Your task to perform on an android device: Show me recent news Image 0: 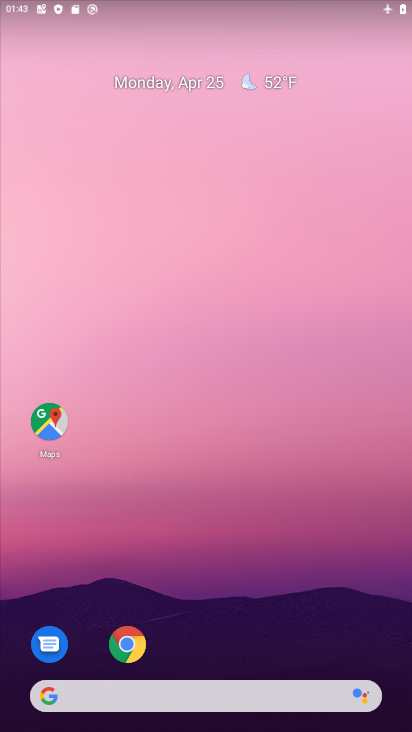
Step 0: drag from (242, 631) to (272, 265)
Your task to perform on an android device: Show me recent news Image 1: 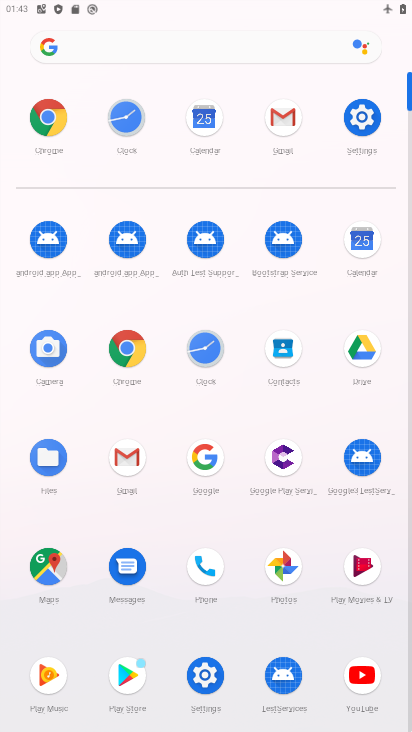
Step 1: click (31, 115)
Your task to perform on an android device: Show me recent news Image 2: 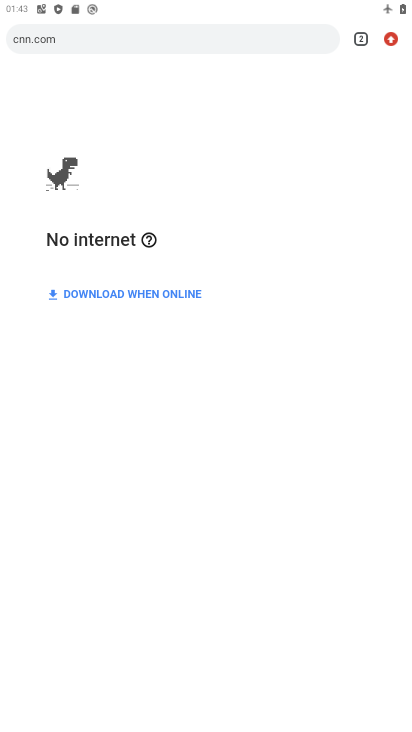
Step 2: press home button
Your task to perform on an android device: Show me recent news Image 3: 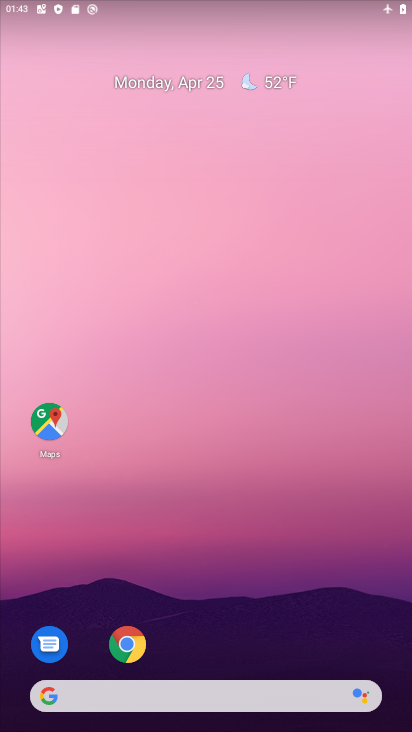
Step 3: drag from (204, 629) to (235, 108)
Your task to perform on an android device: Show me recent news Image 4: 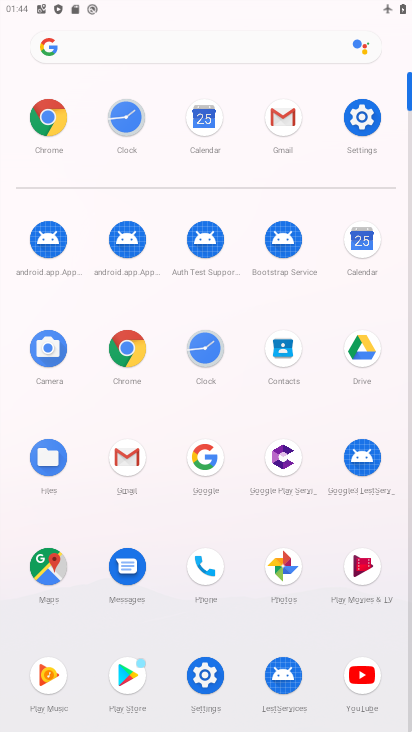
Step 4: click (346, 123)
Your task to perform on an android device: Show me recent news Image 5: 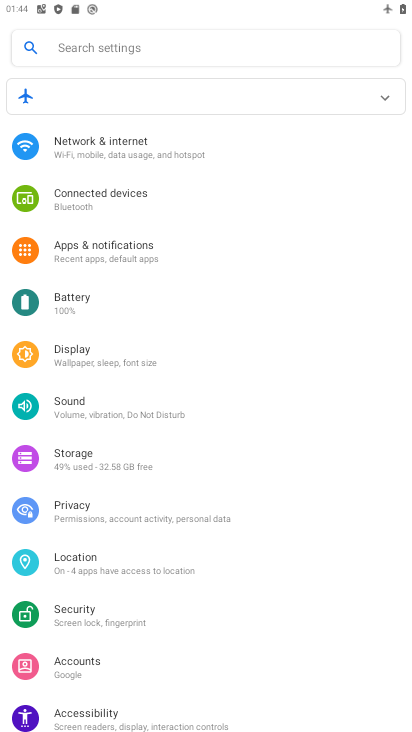
Step 5: click (216, 147)
Your task to perform on an android device: Show me recent news Image 6: 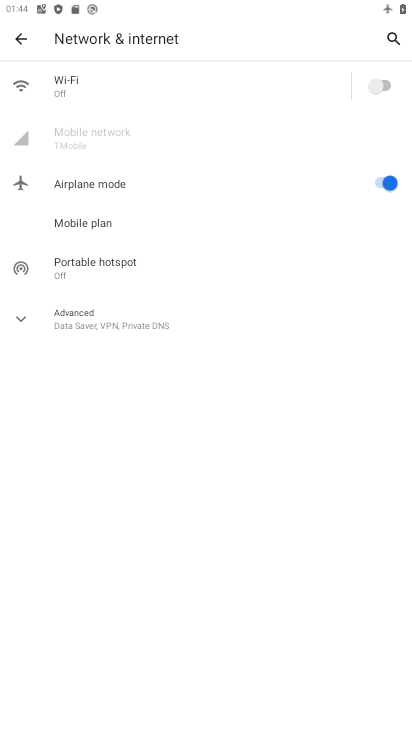
Step 6: click (375, 75)
Your task to perform on an android device: Show me recent news Image 7: 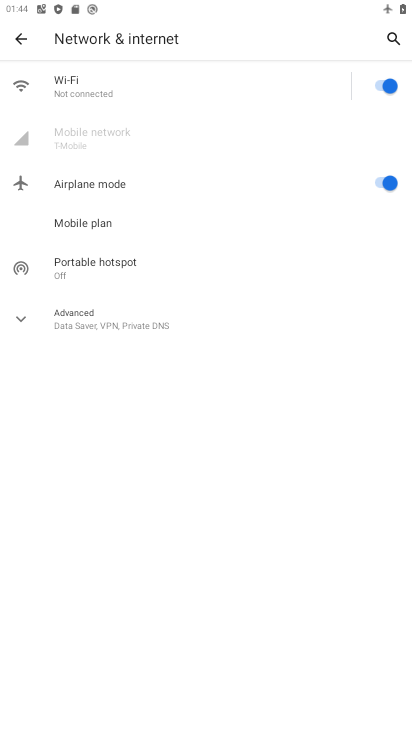
Step 7: press home button
Your task to perform on an android device: Show me recent news Image 8: 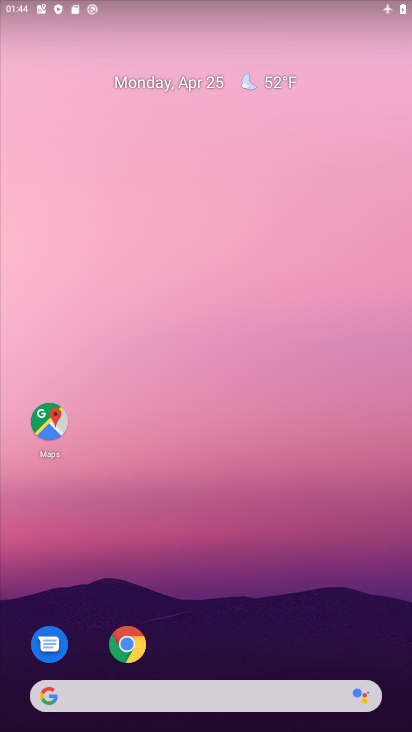
Step 8: click (126, 637)
Your task to perform on an android device: Show me recent news Image 9: 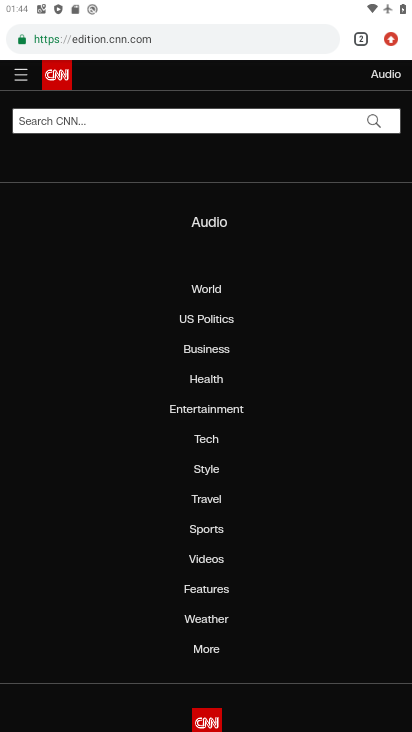
Step 9: click (388, 38)
Your task to perform on an android device: Show me recent news Image 10: 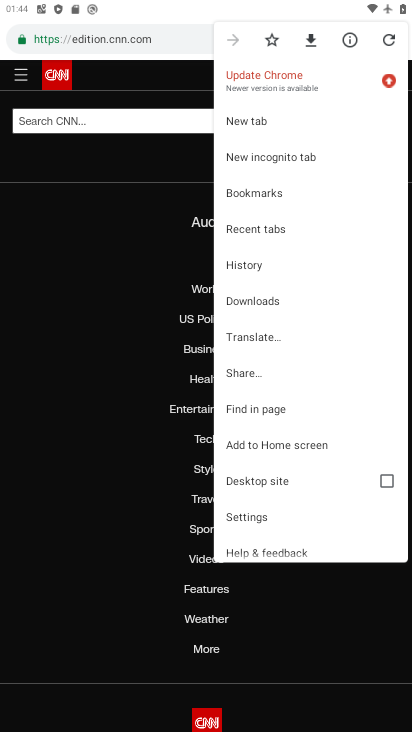
Step 10: click (262, 115)
Your task to perform on an android device: Show me recent news Image 11: 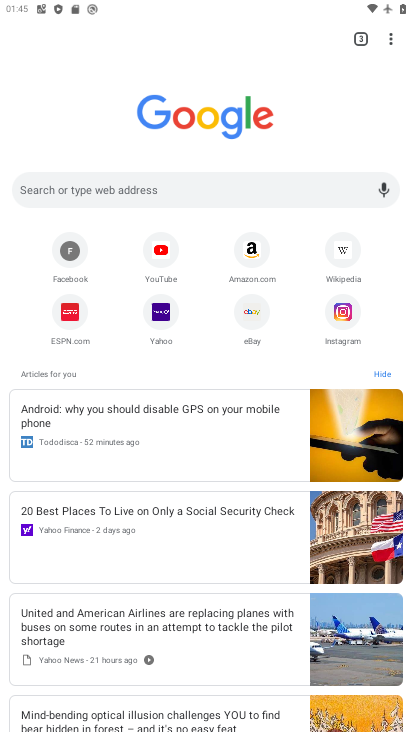
Step 11: task complete